Your task to perform on an android device: Open Chrome and go to settings Image 0: 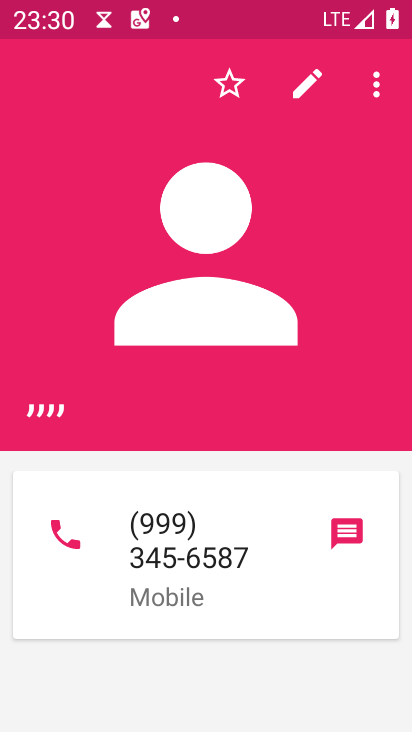
Step 0: press home button
Your task to perform on an android device: Open Chrome and go to settings Image 1: 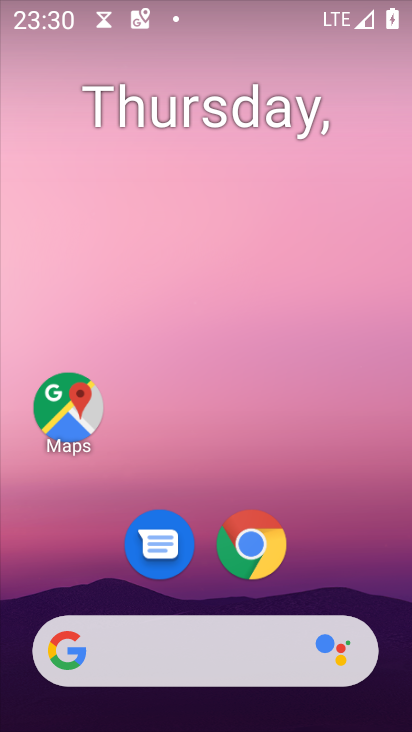
Step 1: click (251, 535)
Your task to perform on an android device: Open Chrome and go to settings Image 2: 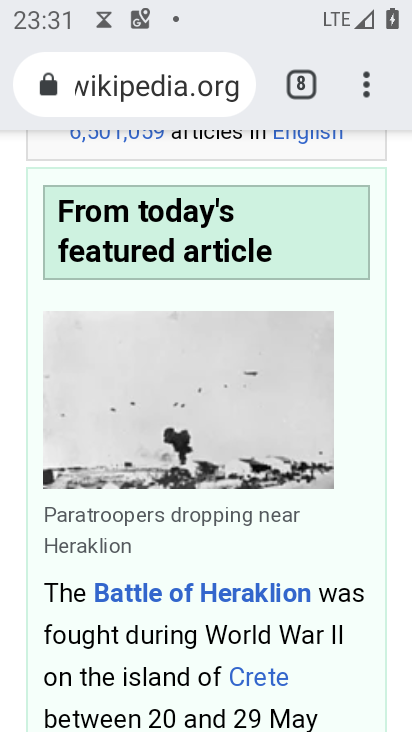
Step 2: click (363, 89)
Your task to perform on an android device: Open Chrome and go to settings Image 3: 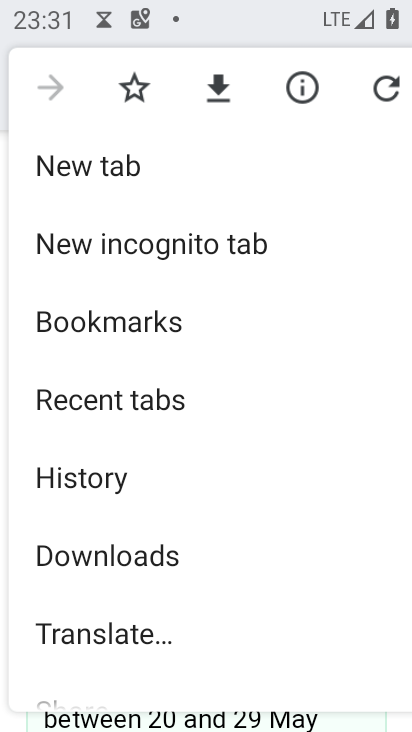
Step 3: drag from (131, 649) to (143, 220)
Your task to perform on an android device: Open Chrome and go to settings Image 4: 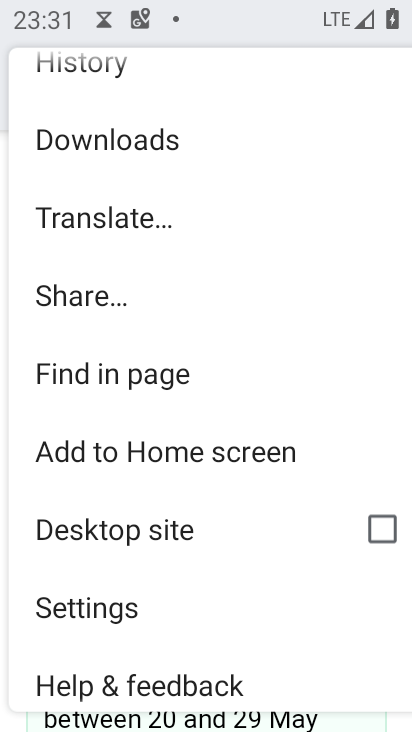
Step 4: click (122, 611)
Your task to perform on an android device: Open Chrome and go to settings Image 5: 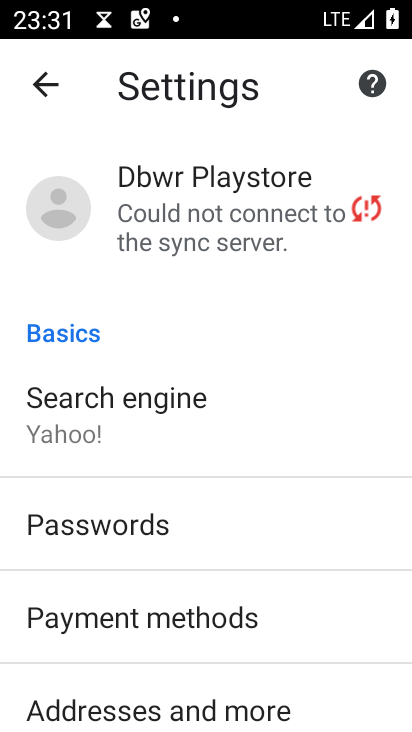
Step 5: task complete